Your task to perform on an android device: change alarm snooze length Image 0: 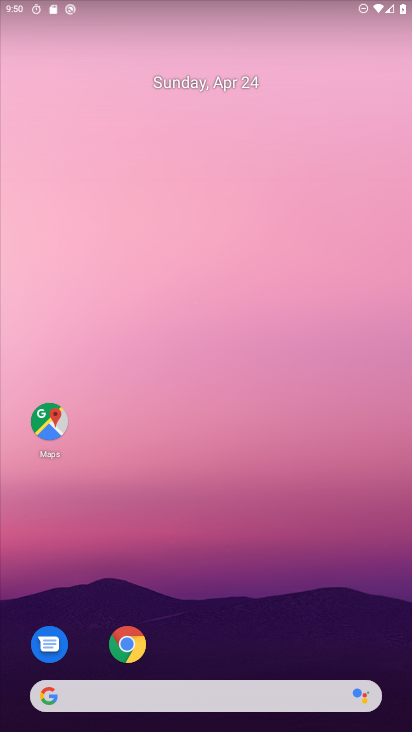
Step 0: drag from (209, 664) to (97, 15)
Your task to perform on an android device: change alarm snooze length Image 1: 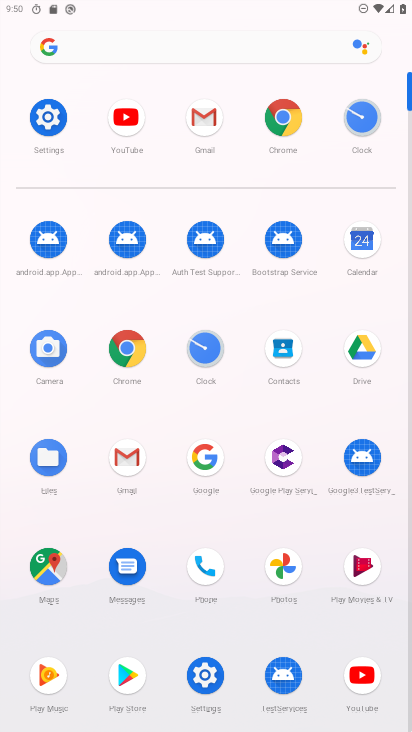
Step 1: click (202, 353)
Your task to perform on an android device: change alarm snooze length Image 2: 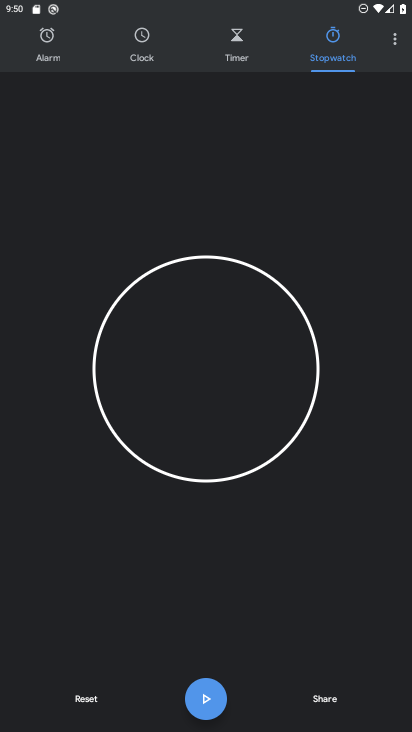
Step 2: click (386, 48)
Your task to perform on an android device: change alarm snooze length Image 3: 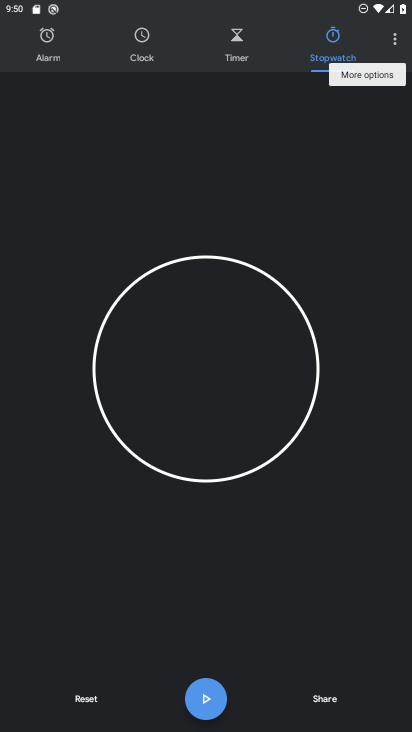
Step 3: click (370, 73)
Your task to perform on an android device: change alarm snooze length Image 4: 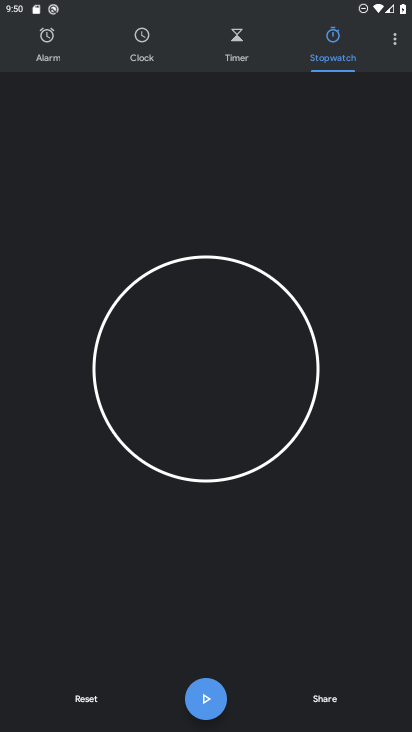
Step 4: click (392, 52)
Your task to perform on an android device: change alarm snooze length Image 5: 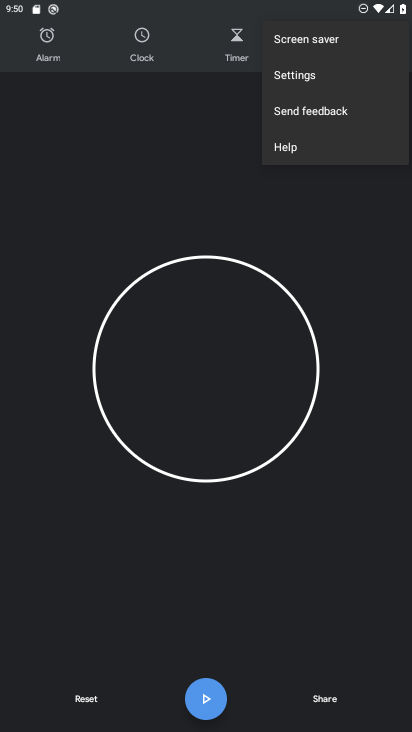
Step 5: click (315, 83)
Your task to perform on an android device: change alarm snooze length Image 6: 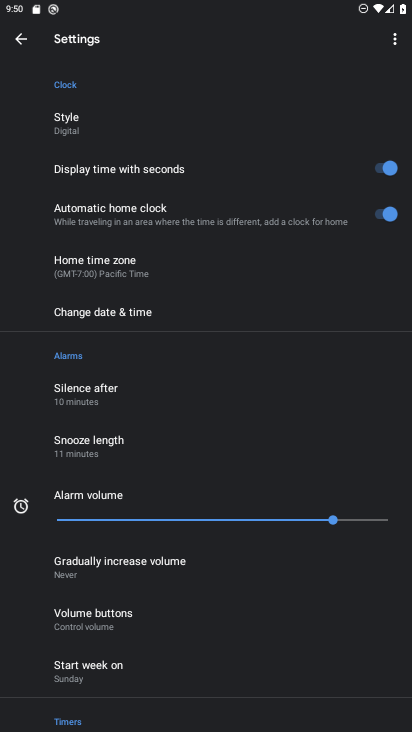
Step 6: click (111, 433)
Your task to perform on an android device: change alarm snooze length Image 7: 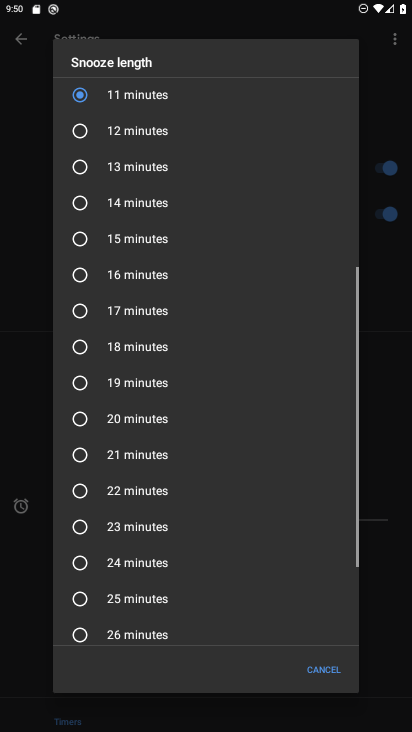
Step 7: click (103, 135)
Your task to perform on an android device: change alarm snooze length Image 8: 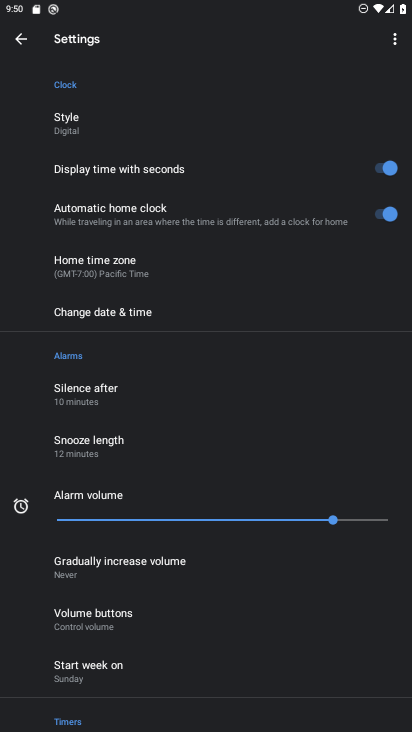
Step 8: task complete